Your task to perform on an android device: check the backup settings in the google photos Image 0: 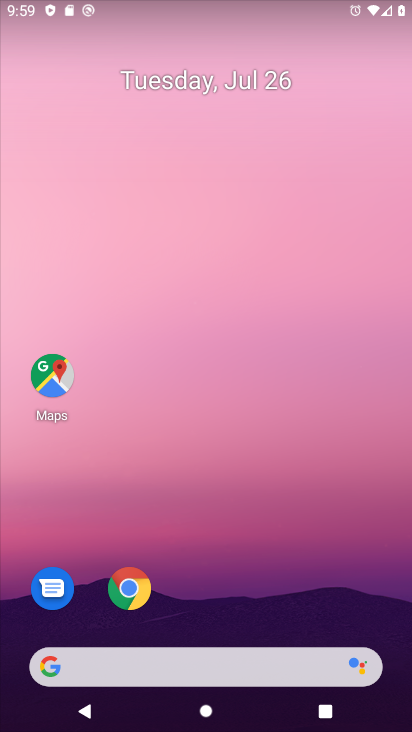
Step 0: drag from (215, 620) to (330, 3)
Your task to perform on an android device: check the backup settings in the google photos Image 1: 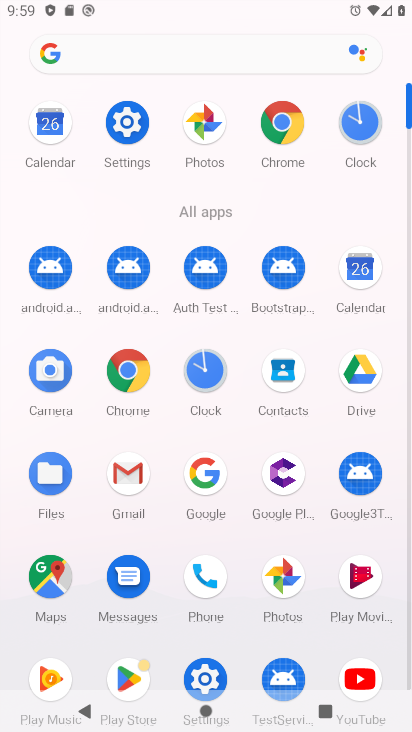
Step 1: click (291, 570)
Your task to perform on an android device: check the backup settings in the google photos Image 2: 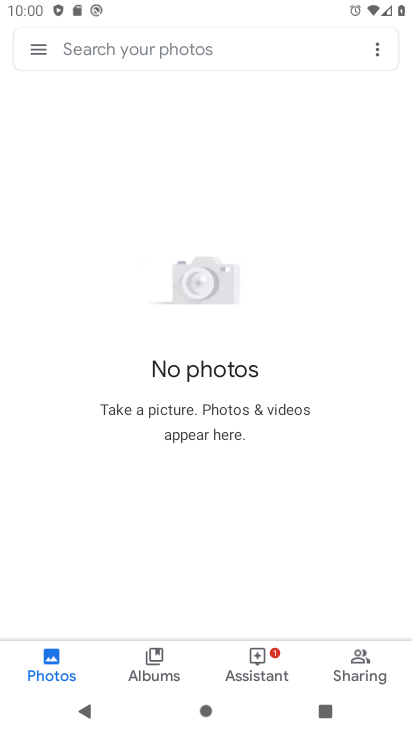
Step 2: click (41, 48)
Your task to perform on an android device: check the backup settings in the google photos Image 3: 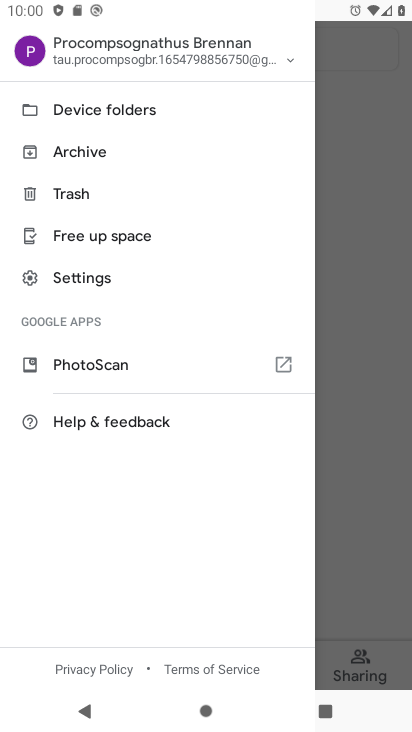
Step 3: click (80, 280)
Your task to perform on an android device: check the backup settings in the google photos Image 4: 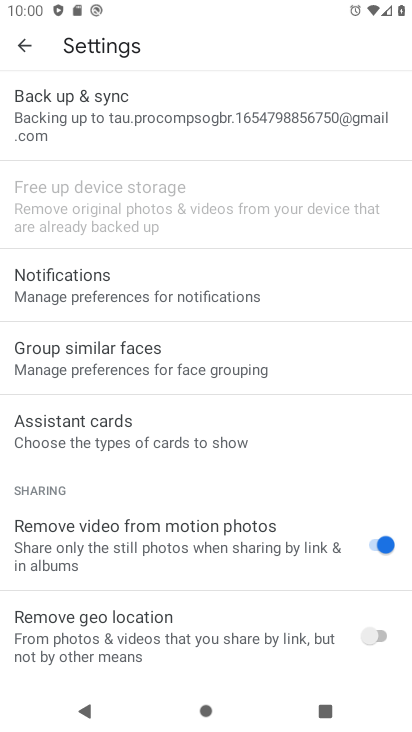
Step 4: click (229, 106)
Your task to perform on an android device: check the backup settings in the google photos Image 5: 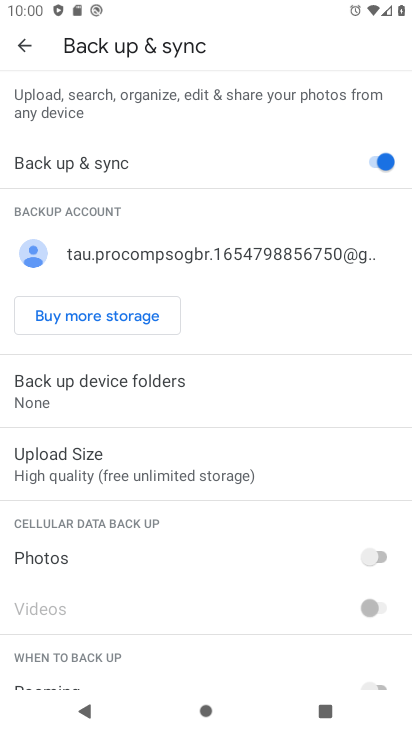
Step 5: task complete